Your task to perform on an android device: Search for macbook on amazon.com, select the first entry, and add it to the cart. Image 0: 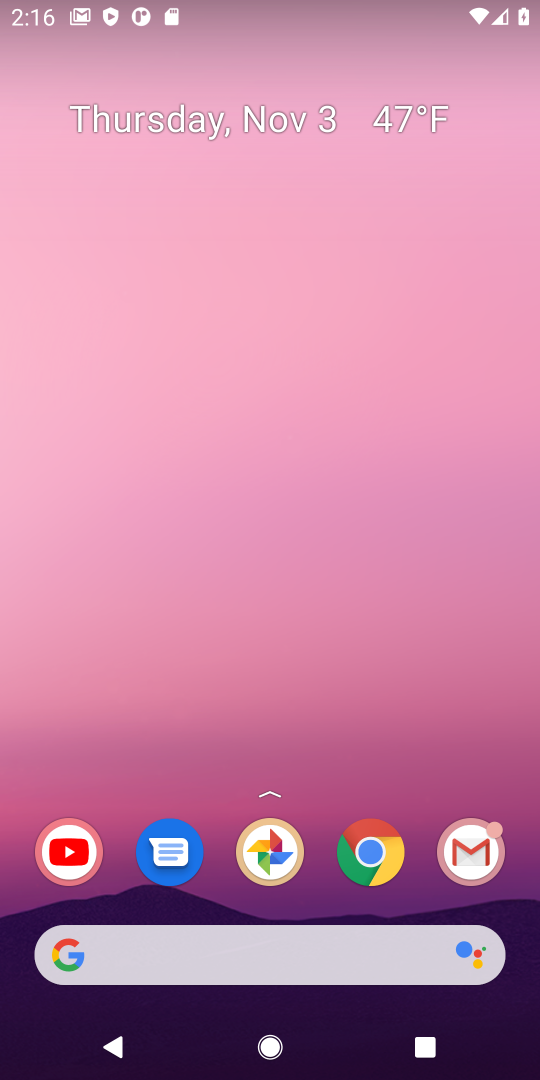
Step 0: click (373, 874)
Your task to perform on an android device: Search for macbook on amazon.com, select the first entry, and add it to the cart. Image 1: 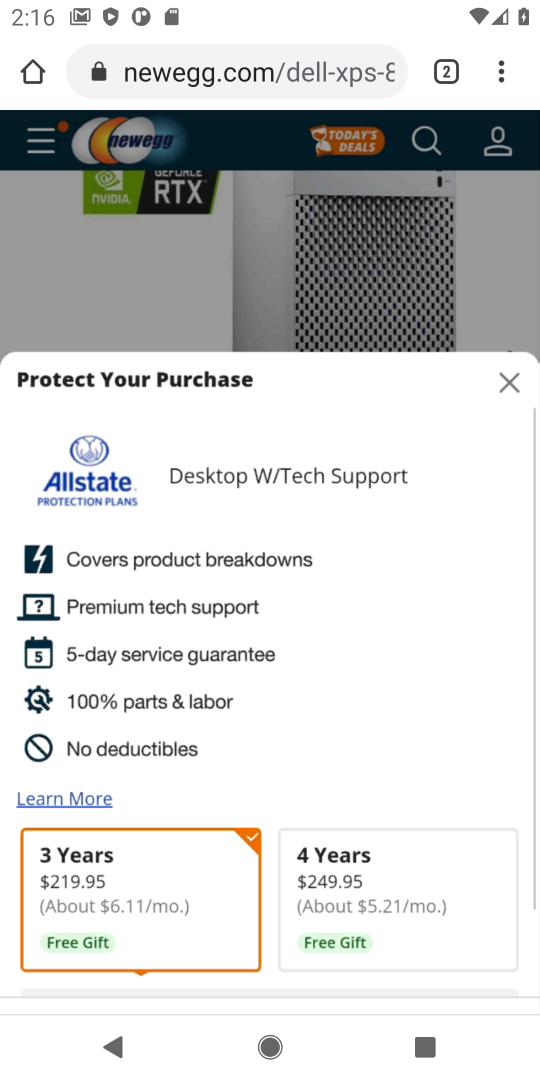
Step 1: click (231, 70)
Your task to perform on an android device: Search for macbook on amazon.com, select the first entry, and add it to the cart. Image 2: 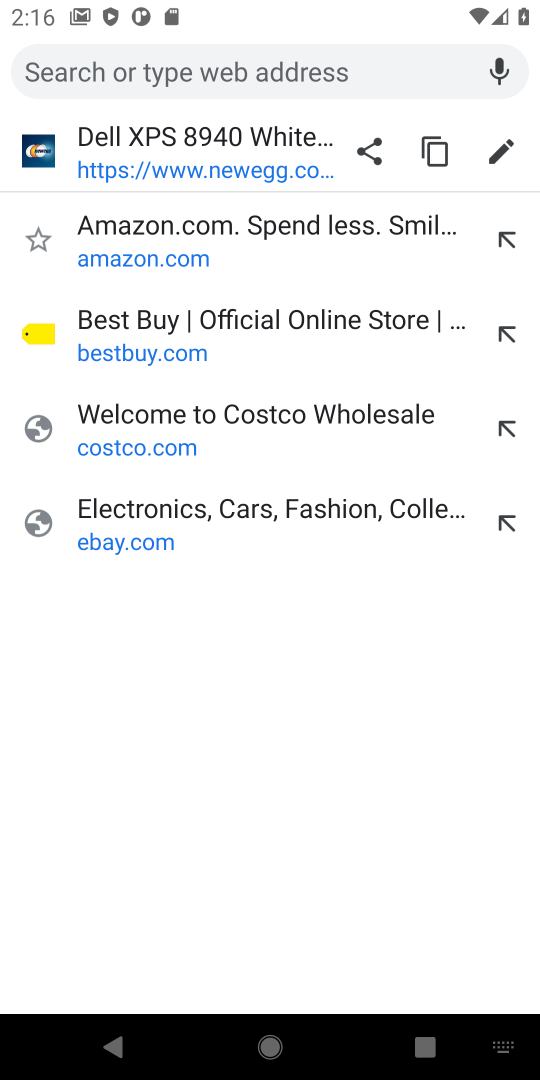
Step 2: click (144, 270)
Your task to perform on an android device: Search for macbook on amazon.com, select the first entry, and add it to the cart. Image 3: 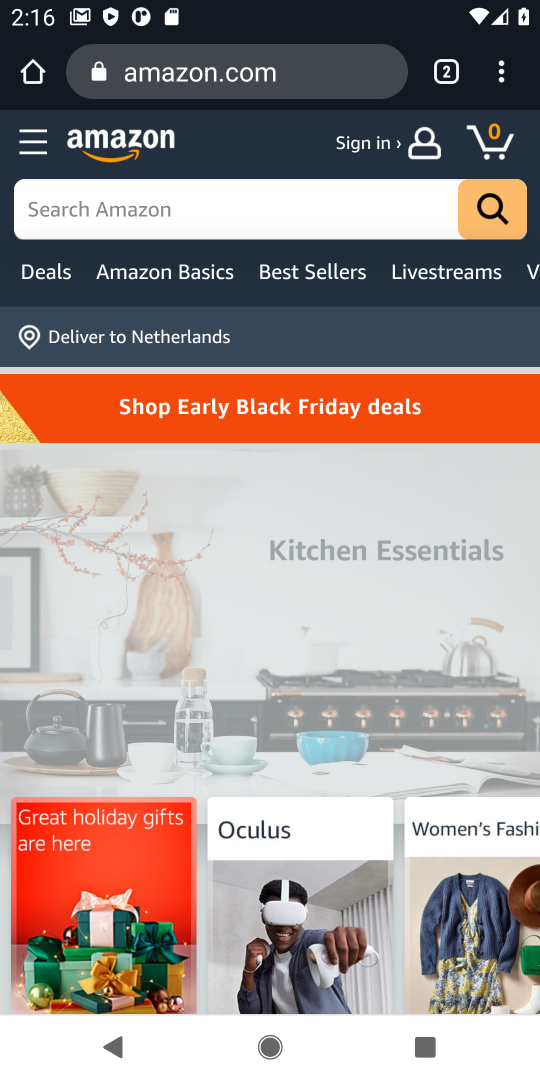
Step 3: click (132, 192)
Your task to perform on an android device: Search for macbook on amazon.com, select the first entry, and add it to the cart. Image 4: 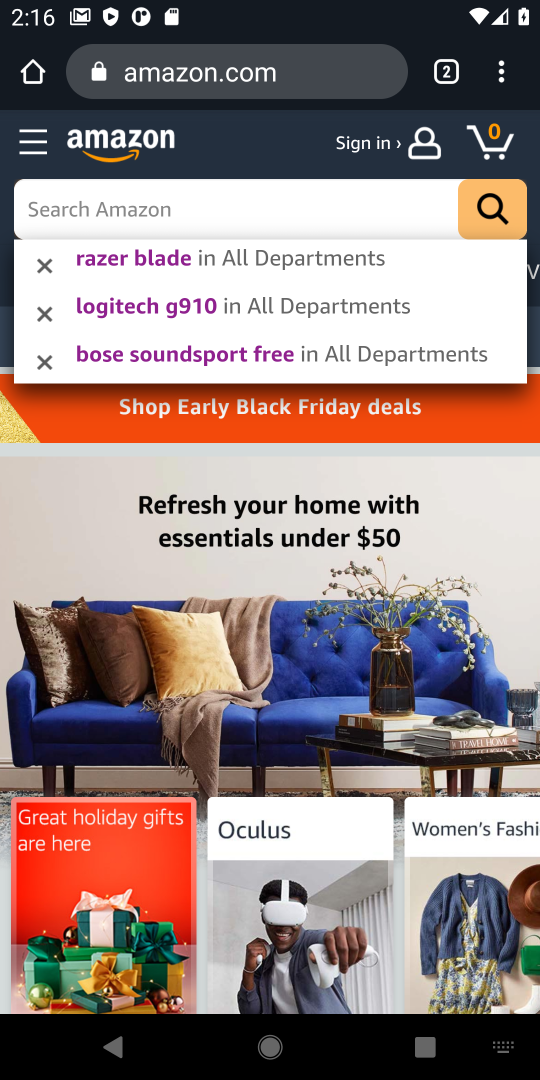
Step 4: type "macbook"
Your task to perform on an android device: Search for macbook on amazon.com, select the first entry, and add it to the cart. Image 5: 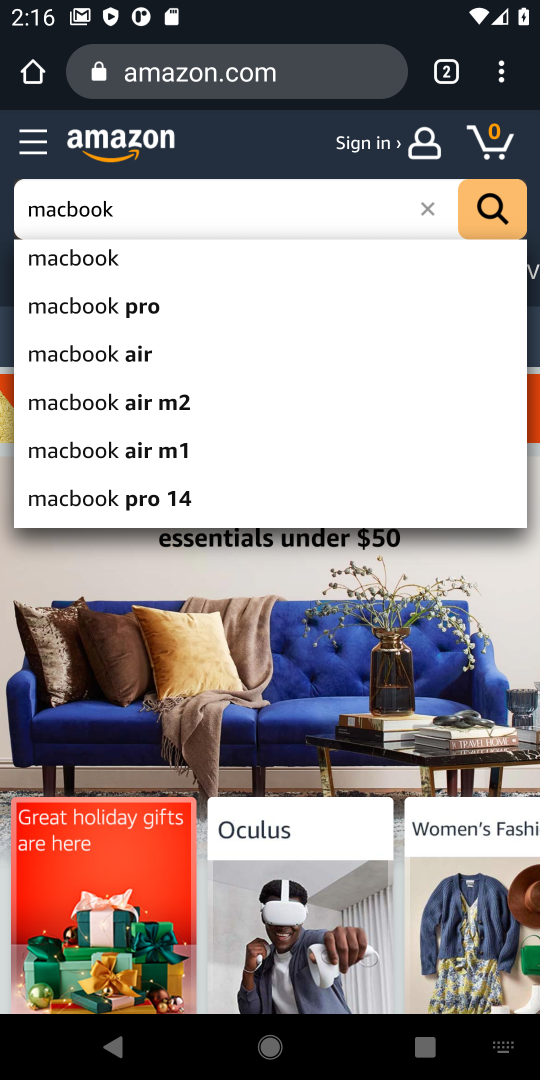
Step 5: click (73, 269)
Your task to perform on an android device: Search for macbook on amazon.com, select the first entry, and add it to the cart. Image 6: 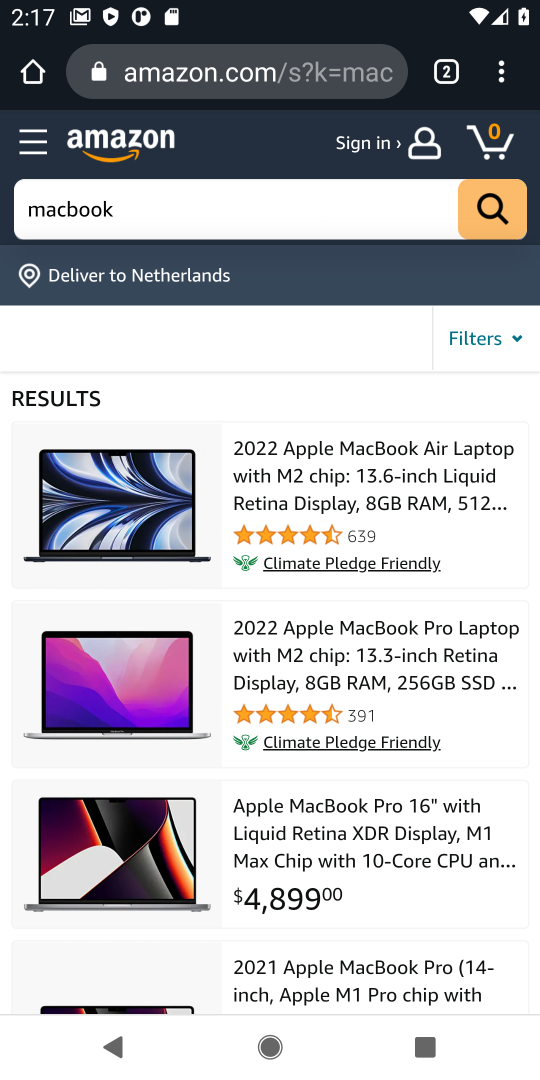
Step 6: click (314, 503)
Your task to perform on an android device: Search for macbook on amazon.com, select the first entry, and add it to the cart. Image 7: 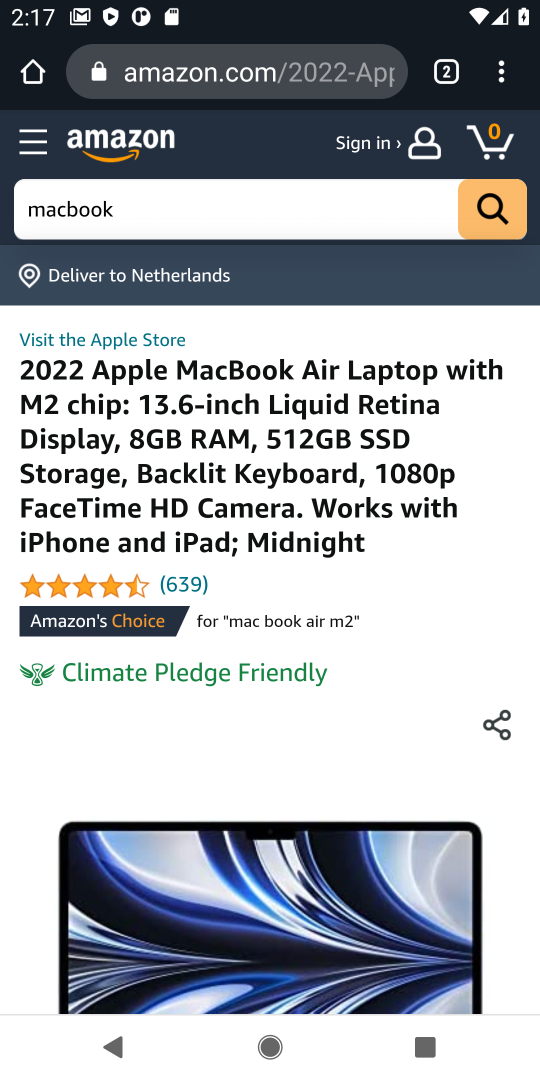
Step 7: drag from (297, 864) to (312, 250)
Your task to perform on an android device: Search for macbook on amazon.com, select the first entry, and add it to the cart. Image 8: 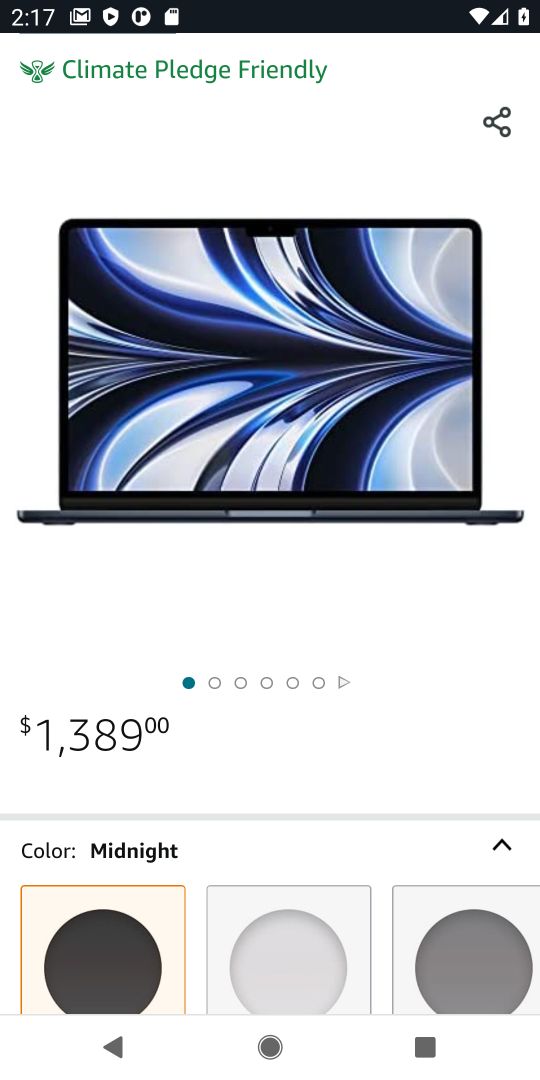
Step 8: drag from (273, 731) to (272, 238)
Your task to perform on an android device: Search for macbook on amazon.com, select the first entry, and add it to the cart. Image 9: 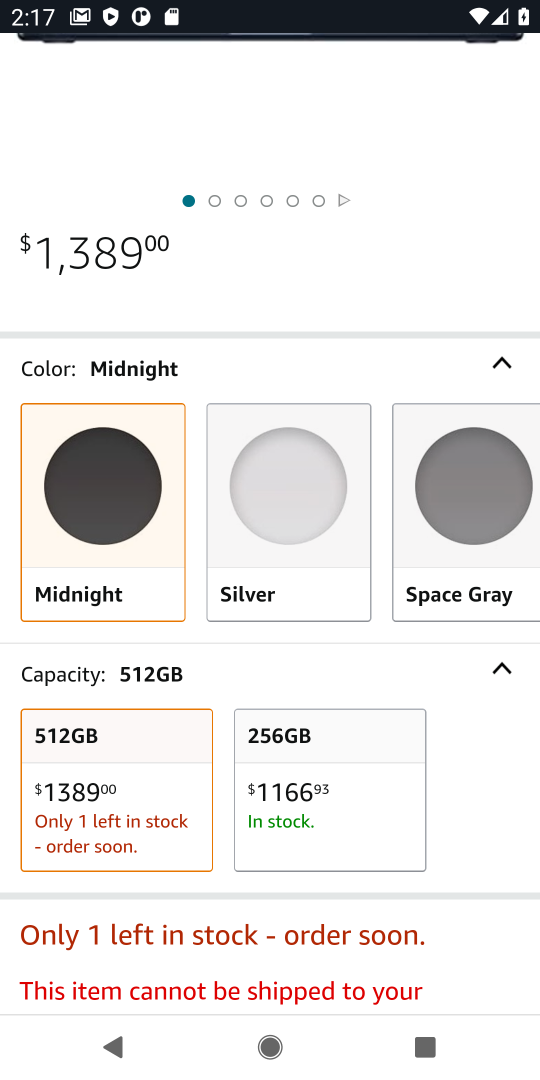
Step 9: drag from (240, 880) to (239, 435)
Your task to perform on an android device: Search for macbook on amazon.com, select the first entry, and add it to the cart. Image 10: 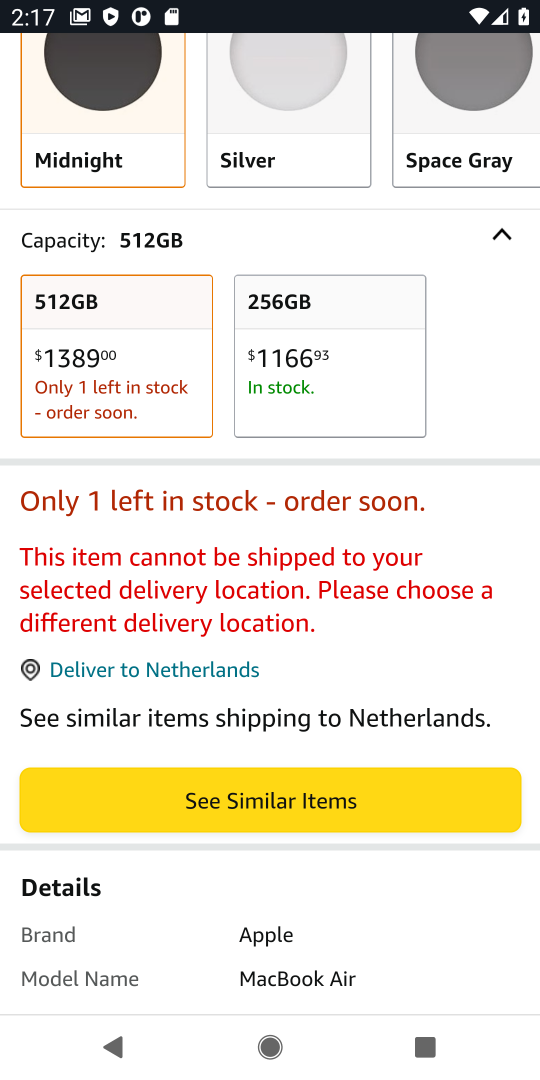
Step 10: drag from (225, 611) to (221, 369)
Your task to perform on an android device: Search for macbook on amazon.com, select the first entry, and add it to the cart. Image 11: 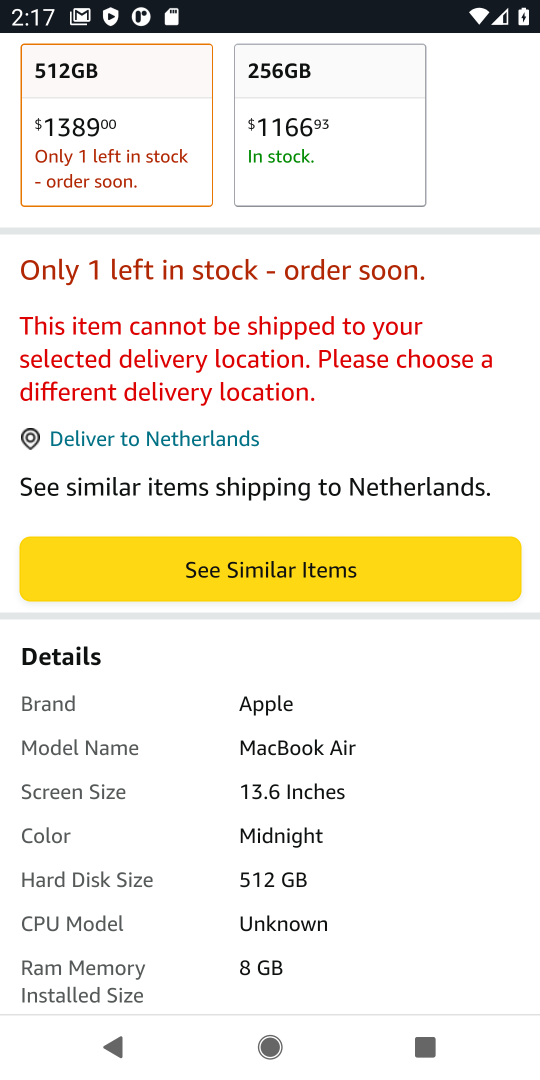
Step 11: drag from (248, 729) to (247, 304)
Your task to perform on an android device: Search for macbook on amazon.com, select the first entry, and add it to the cart. Image 12: 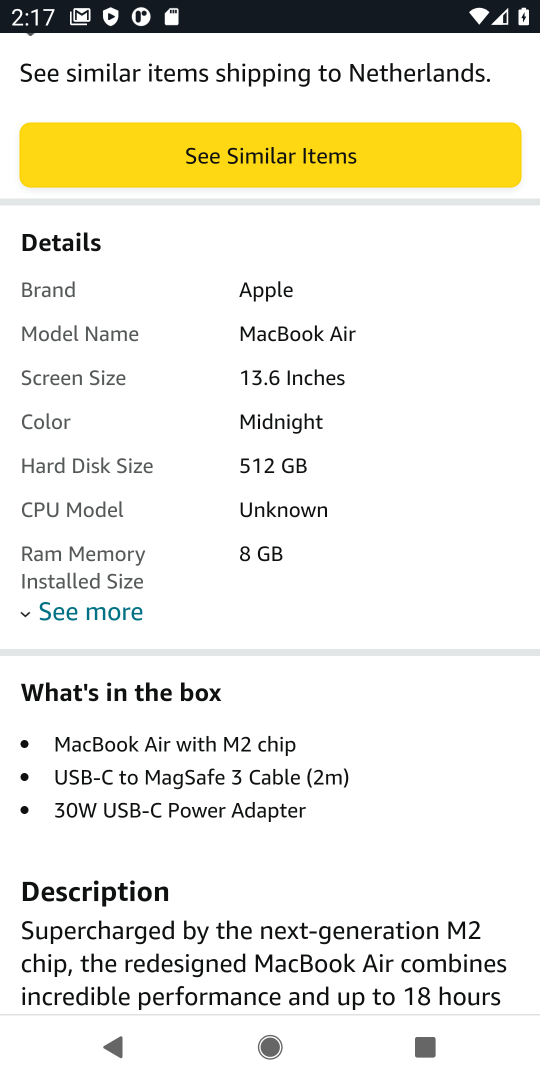
Step 12: drag from (240, 756) to (240, 285)
Your task to perform on an android device: Search for macbook on amazon.com, select the first entry, and add it to the cart. Image 13: 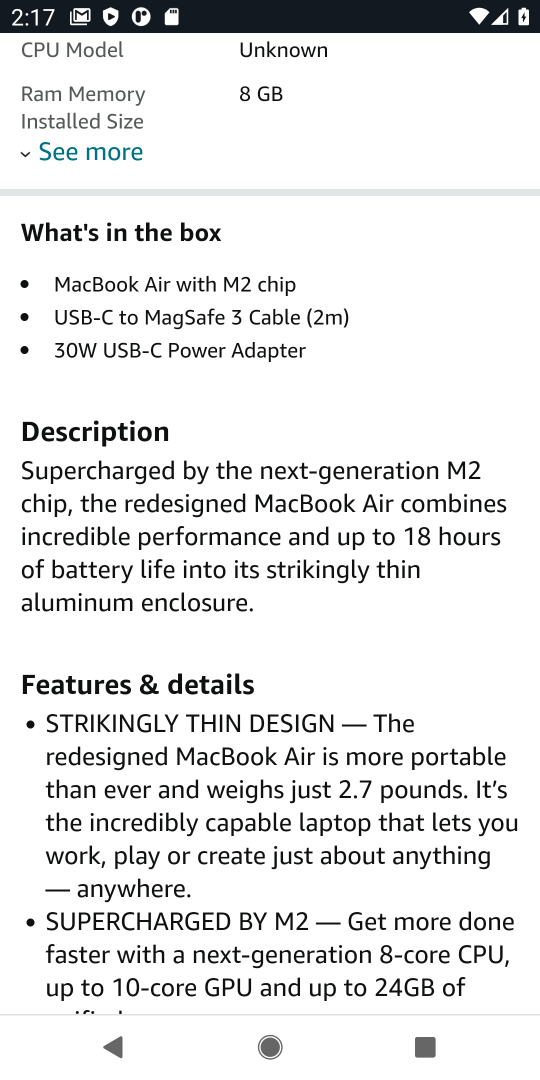
Step 13: drag from (204, 824) to (217, 281)
Your task to perform on an android device: Search for macbook on amazon.com, select the first entry, and add it to the cart. Image 14: 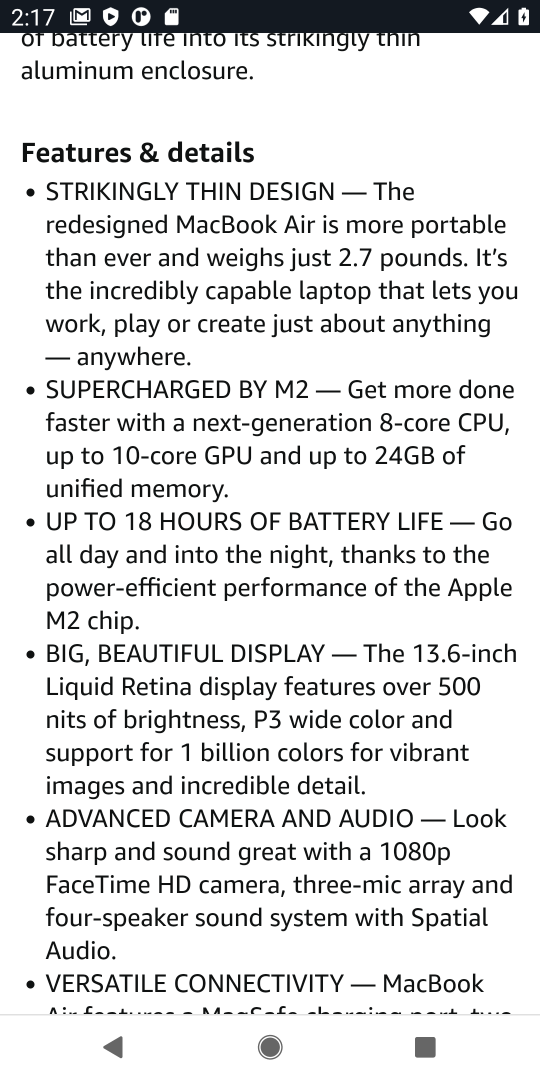
Step 14: drag from (215, 727) to (209, 297)
Your task to perform on an android device: Search for macbook on amazon.com, select the first entry, and add it to the cart. Image 15: 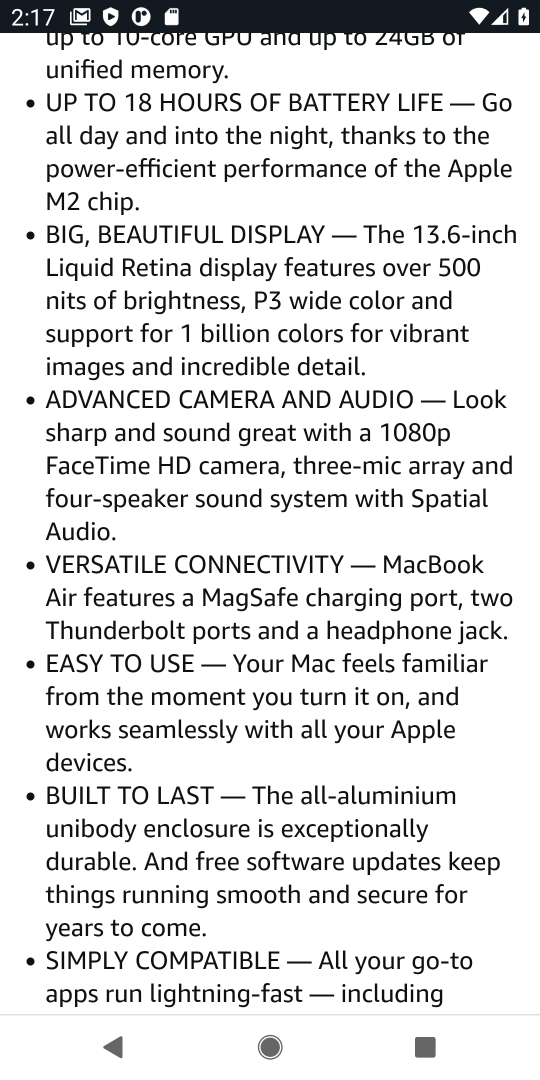
Step 15: drag from (209, 294) to (197, 1078)
Your task to perform on an android device: Search for macbook on amazon.com, select the first entry, and add it to the cart. Image 16: 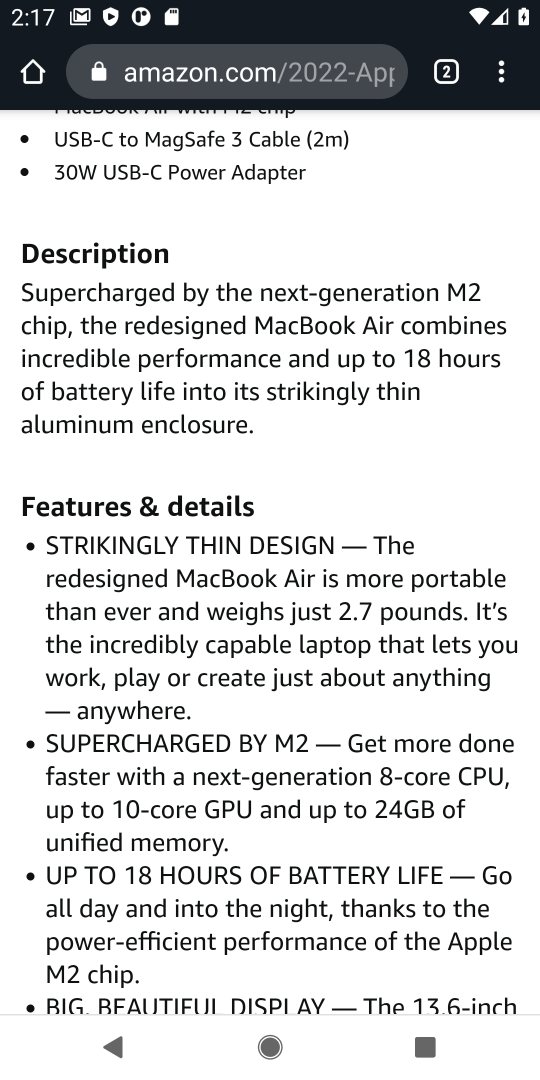
Step 16: drag from (282, 277) to (245, 1067)
Your task to perform on an android device: Search for macbook on amazon.com, select the first entry, and add it to the cart. Image 17: 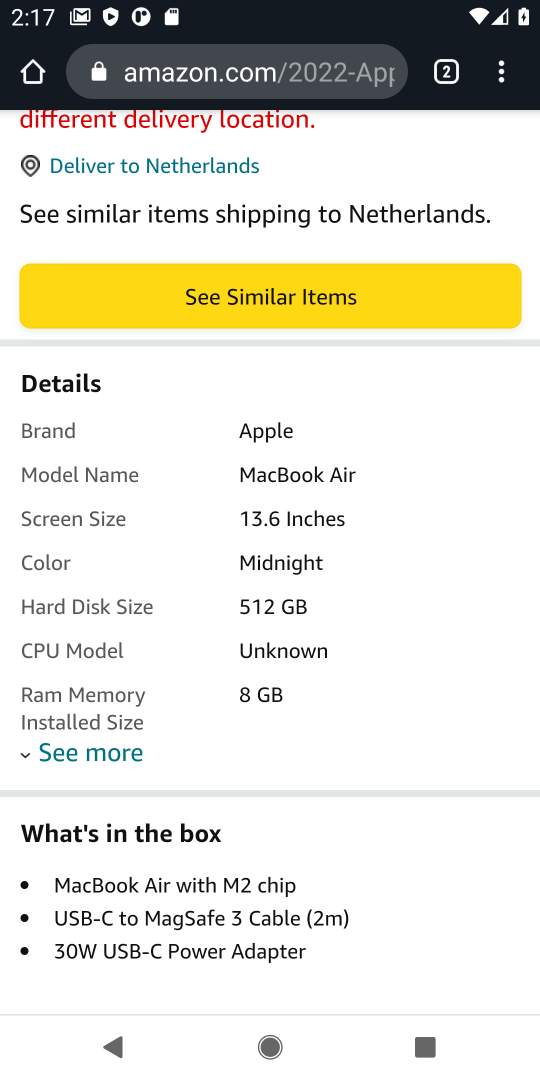
Step 17: drag from (440, 307) to (404, 999)
Your task to perform on an android device: Search for macbook on amazon.com, select the first entry, and add it to the cart. Image 18: 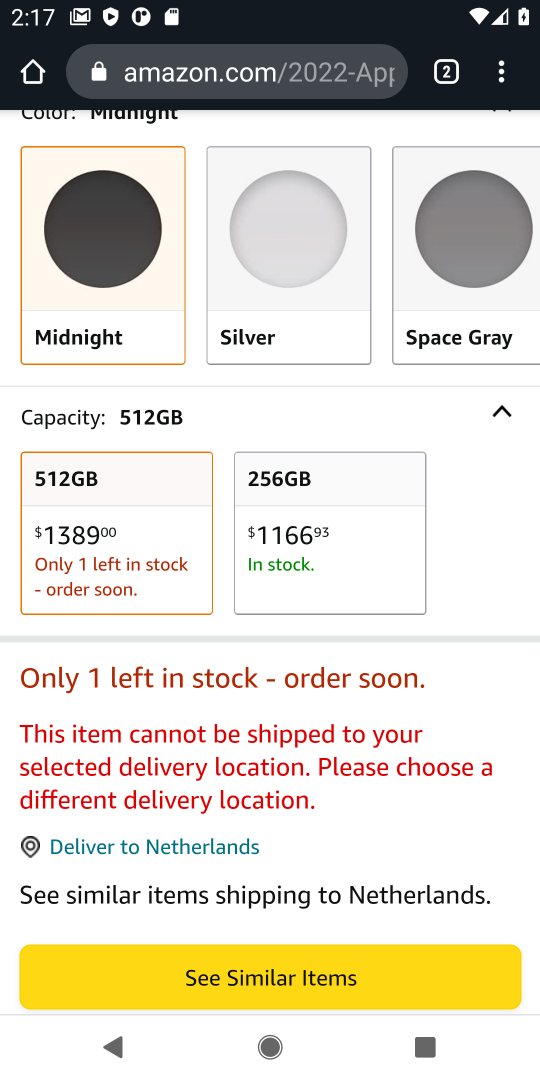
Step 18: drag from (430, 438) to (354, 1078)
Your task to perform on an android device: Search for macbook on amazon.com, select the first entry, and add it to the cart. Image 19: 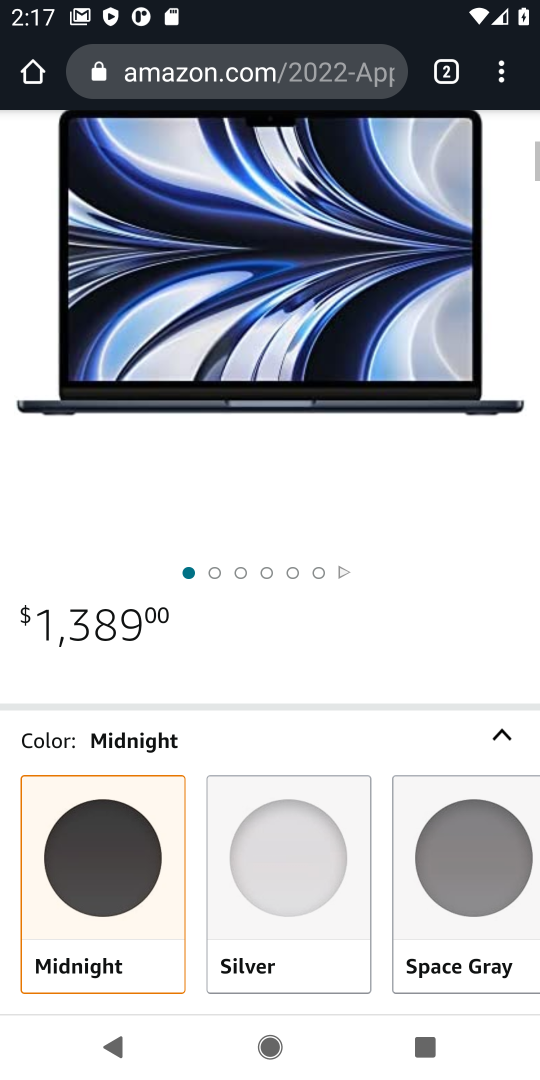
Step 19: drag from (397, 352) to (327, 968)
Your task to perform on an android device: Search for macbook on amazon.com, select the first entry, and add it to the cart. Image 20: 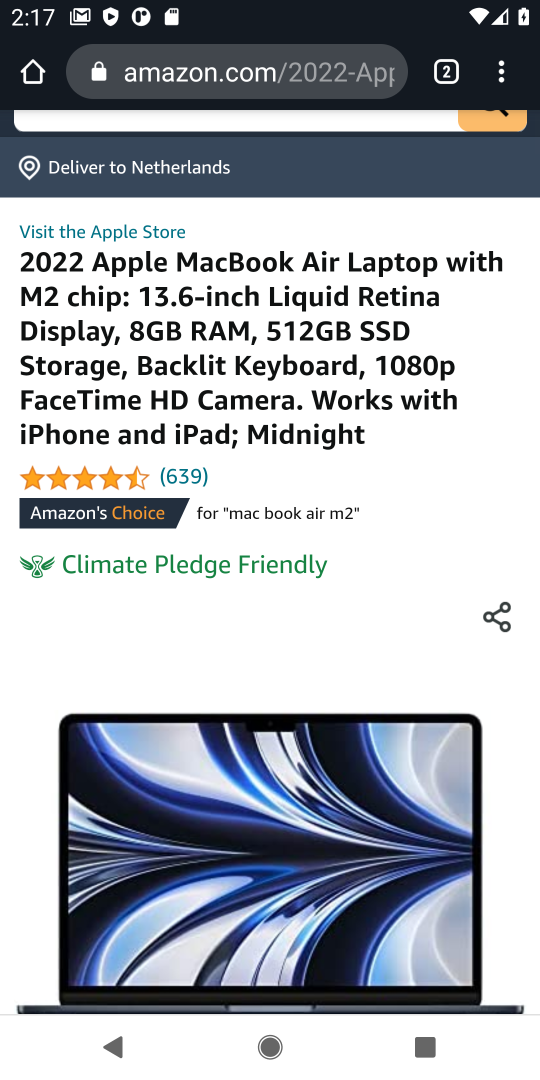
Step 20: drag from (358, 369) to (330, 902)
Your task to perform on an android device: Search for macbook on amazon.com, select the first entry, and add it to the cart. Image 21: 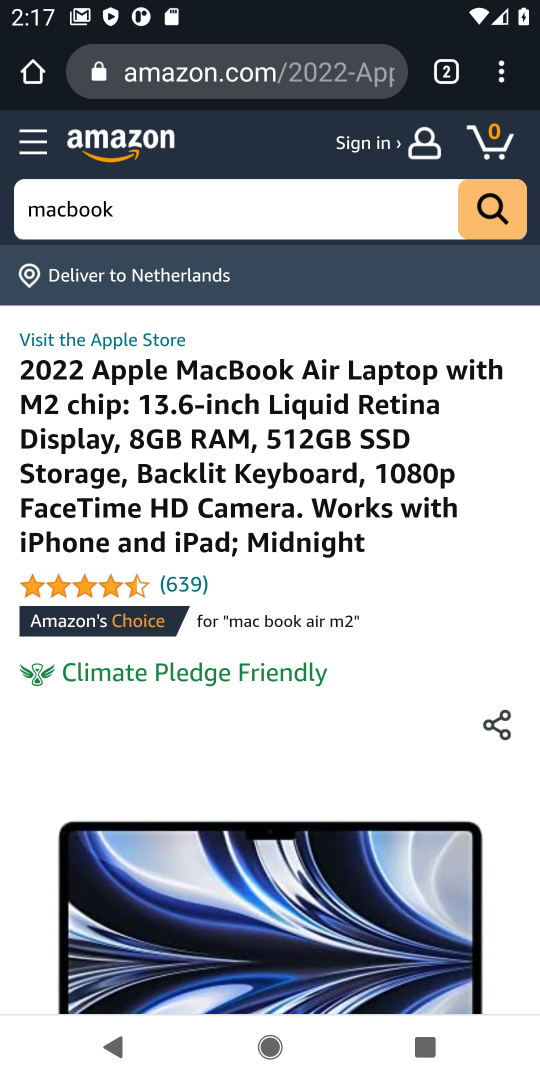
Step 21: press back button
Your task to perform on an android device: Search for macbook on amazon.com, select the first entry, and add it to the cart. Image 22: 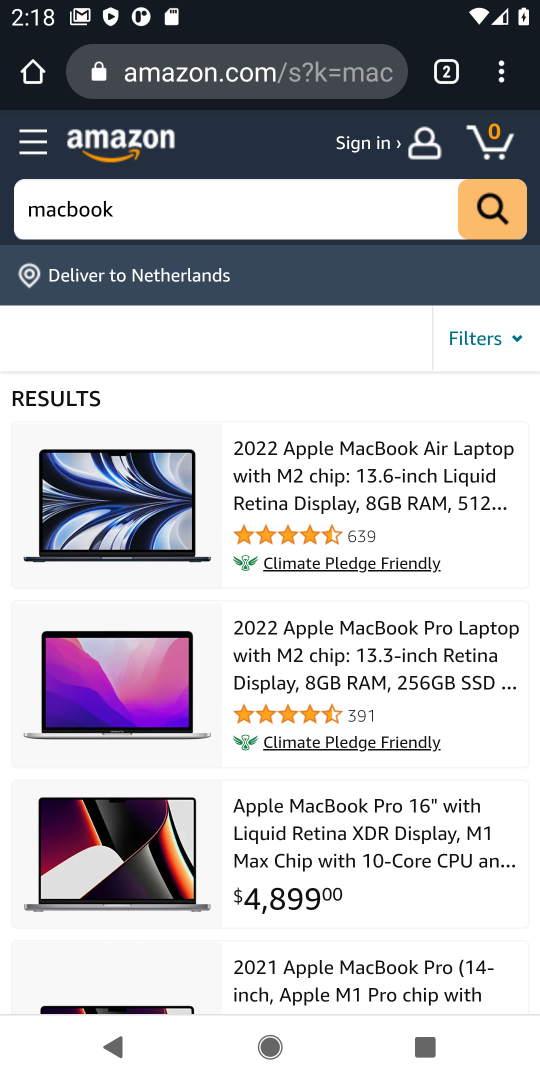
Step 22: click (271, 699)
Your task to perform on an android device: Search for macbook on amazon.com, select the first entry, and add it to the cart. Image 23: 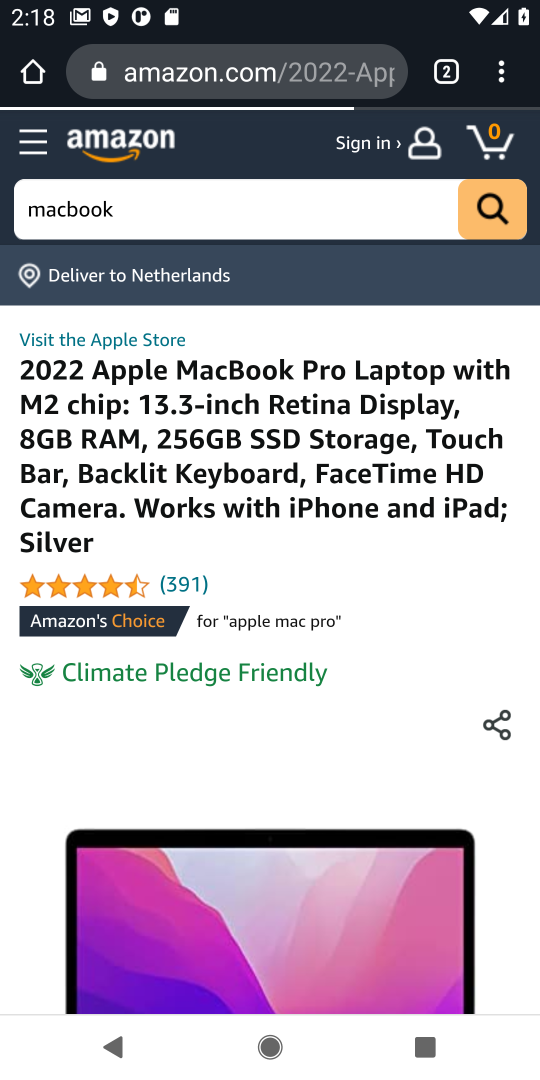
Step 23: drag from (271, 693) to (289, 122)
Your task to perform on an android device: Search for macbook on amazon.com, select the first entry, and add it to the cart. Image 24: 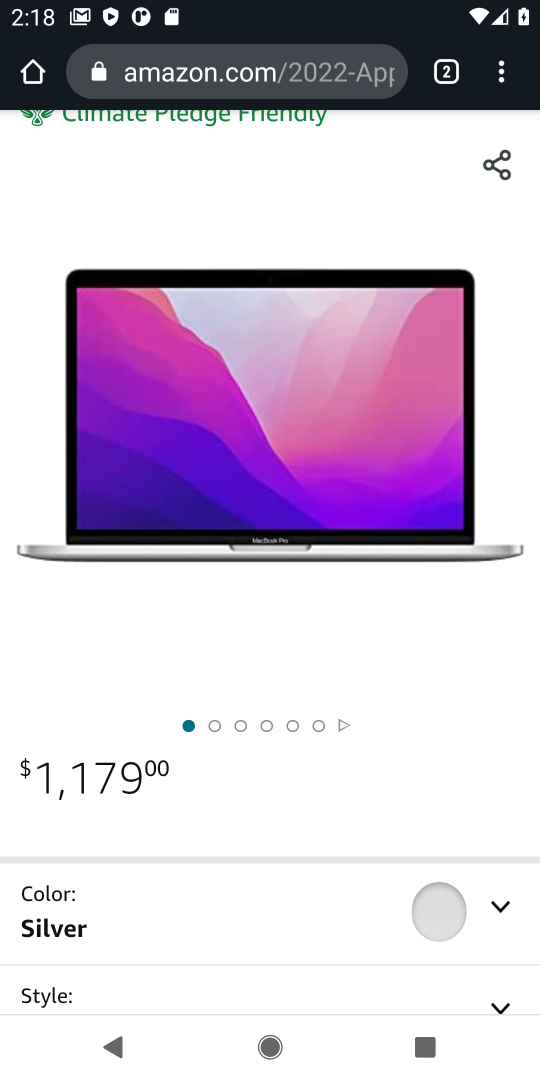
Step 24: drag from (242, 708) to (265, 197)
Your task to perform on an android device: Search for macbook on amazon.com, select the first entry, and add it to the cart. Image 25: 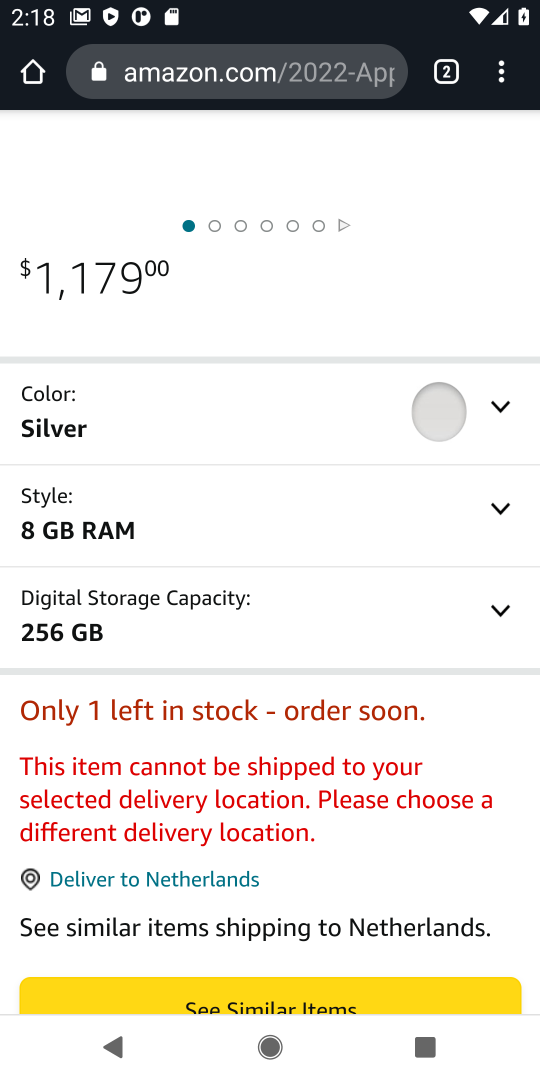
Step 25: drag from (315, 488) to (320, 926)
Your task to perform on an android device: Search for macbook on amazon.com, select the first entry, and add it to the cart. Image 26: 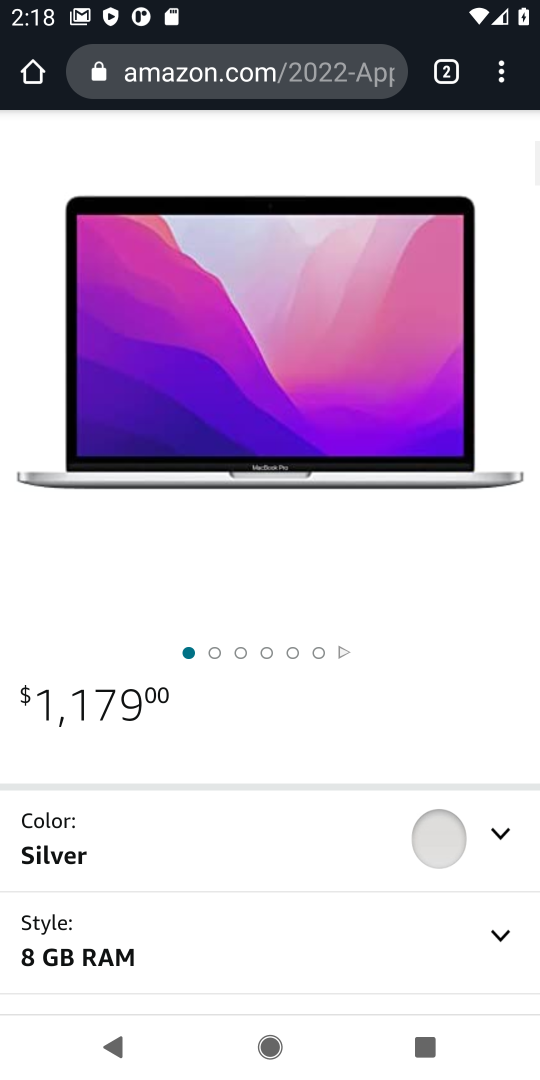
Step 26: press back button
Your task to perform on an android device: Search for macbook on amazon.com, select the first entry, and add it to the cart. Image 27: 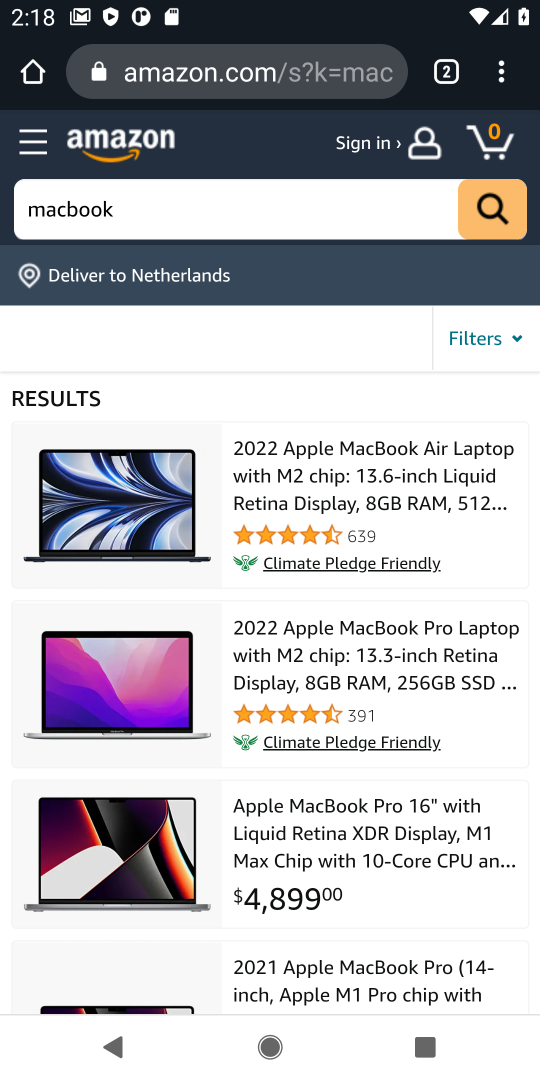
Step 27: drag from (247, 796) to (247, 491)
Your task to perform on an android device: Search for macbook on amazon.com, select the first entry, and add it to the cart. Image 28: 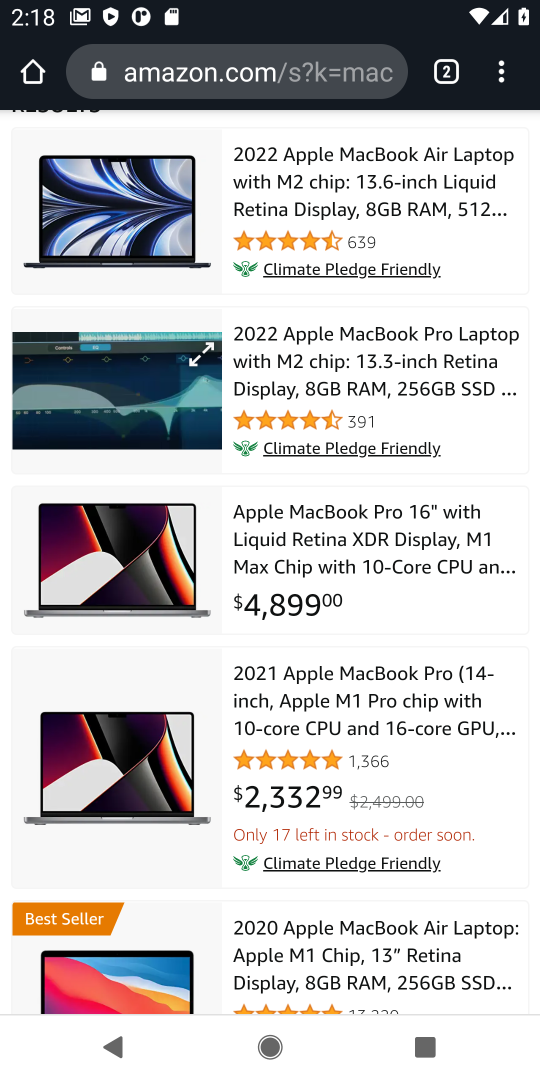
Step 28: click (247, 555)
Your task to perform on an android device: Search for macbook on amazon.com, select the first entry, and add it to the cart. Image 29: 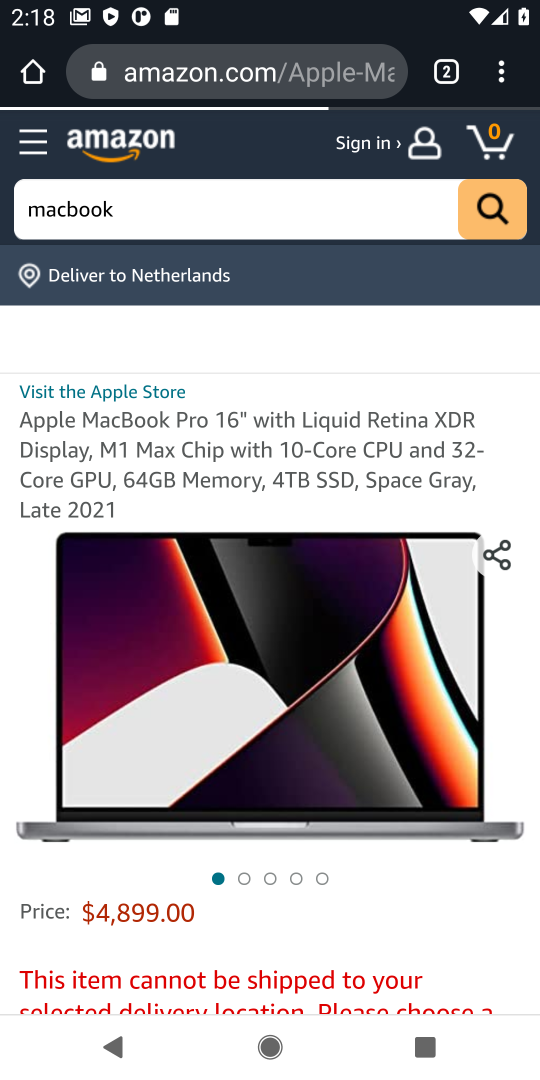
Step 29: drag from (268, 756) to (274, 205)
Your task to perform on an android device: Search for macbook on amazon.com, select the first entry, and add it to the cart. Image 30: 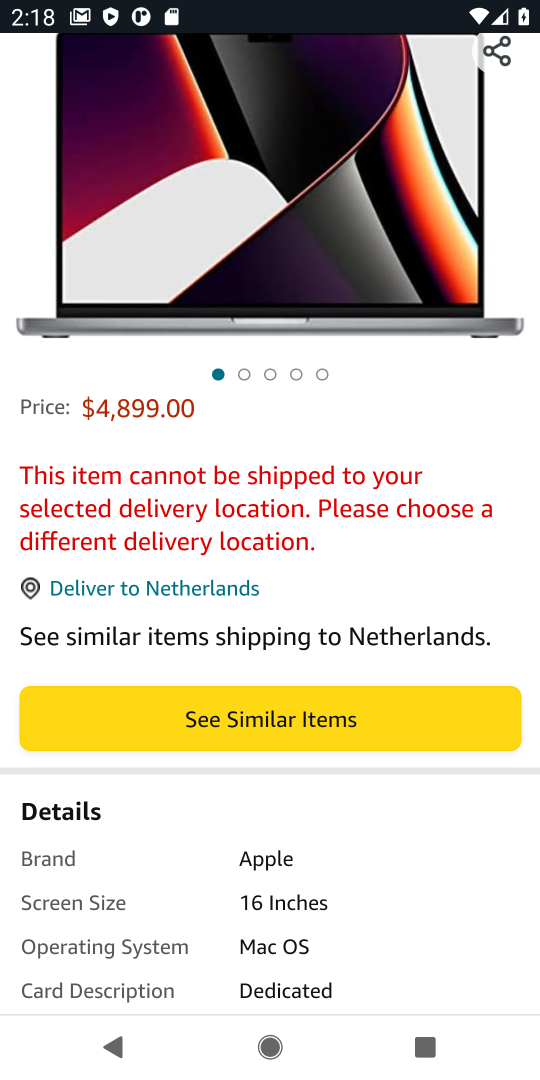
Step 30: drag from (277, 223) to (328, 861)
Your task to perform on an android device: Search for macbook on amazon.com, select the first entry, and add it to the cart. Image 31: 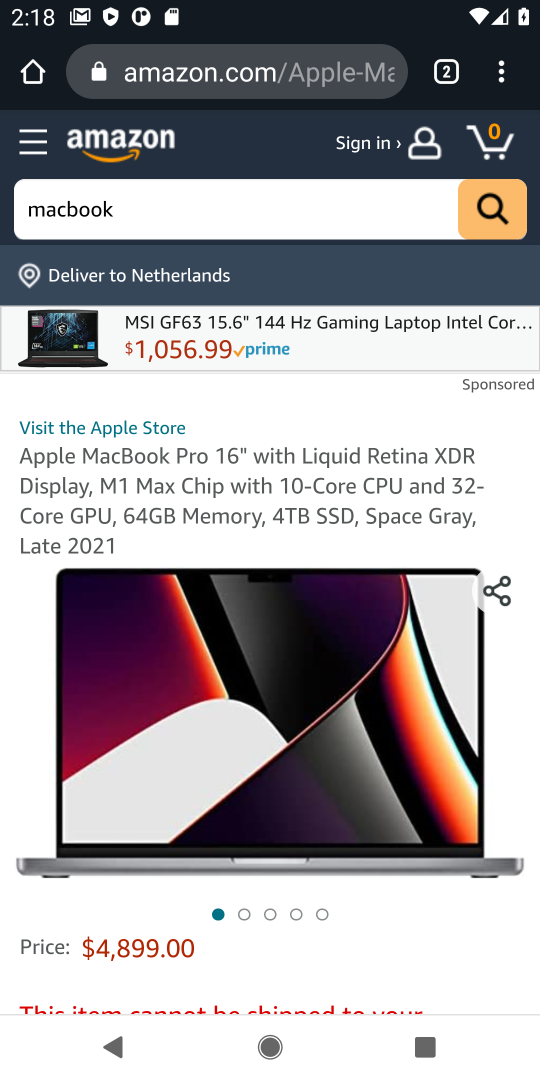
Step 31: press back button
Your task to perform on an android device: Search for macbook on amazon.com, select the first entry, and add it to the cart. Image 32: 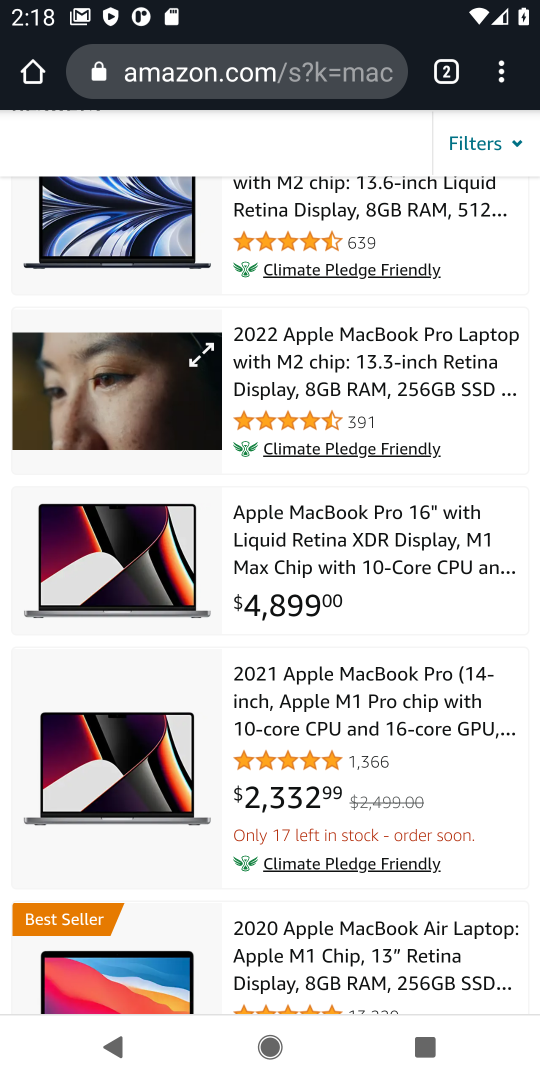
Step 32: click (267, 751)
Your task to perform on an android device: Search for macbook on amazon.com, select the first entry, and add it to the cart. Image 33: 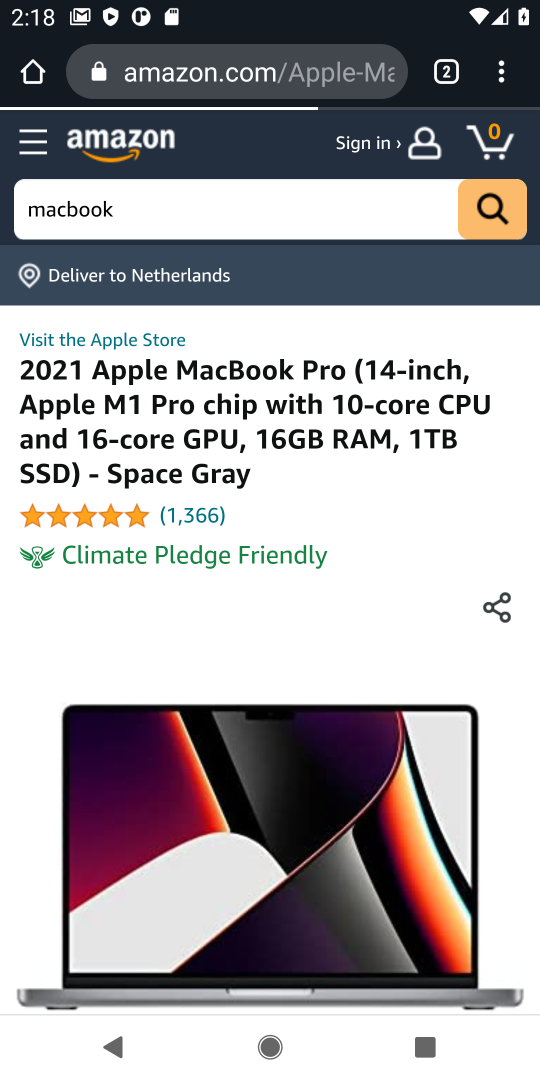
Step 33: drag from (267, 749) to (256, 180)
Your task to perform on an android device: Search for macbook on amazon.com, select the first entry, and add it to the cart. Image 34: 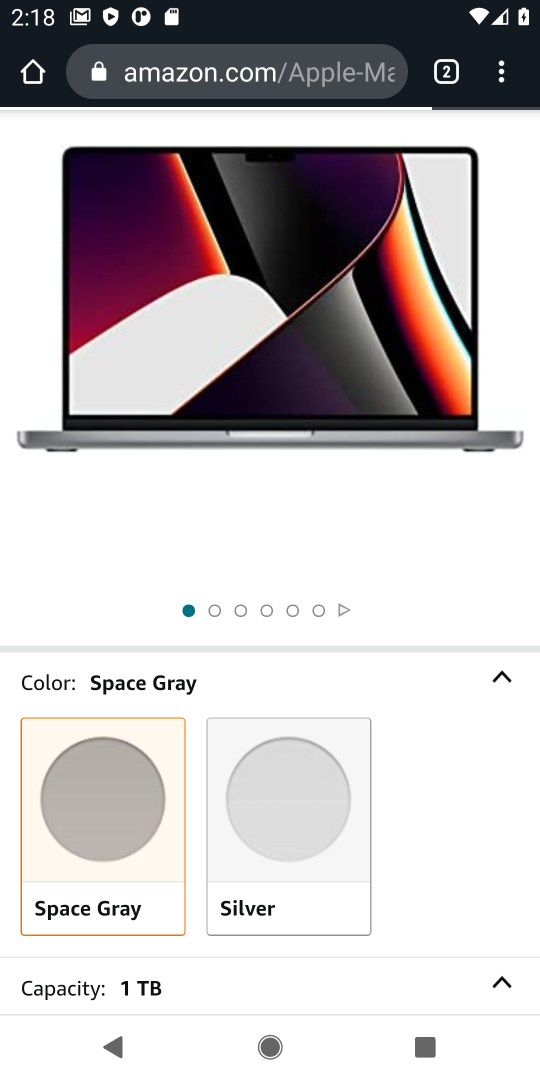
Step 34: drag from (233, 705) to (218, 247)
Your task to perform on an android device: Search for macbook on amazon.com, select the first entry, and add it to the cart. Image 35: 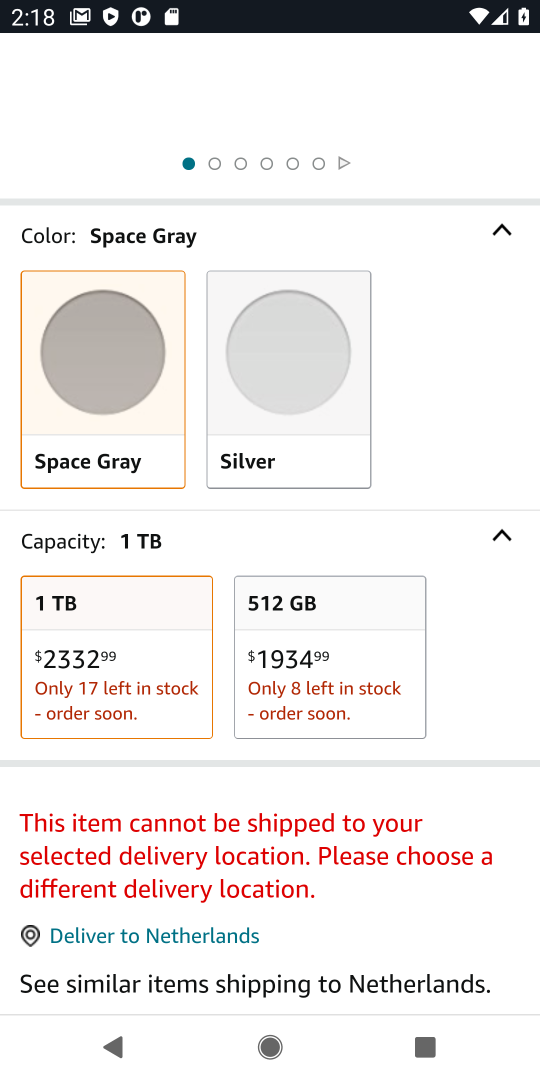
Step 35: drag from (387, 734) to (374, 249)
Your task to perform on an android device: Search for macbook on amazon.com, select the first entry, and add it to the cart. Image 36: 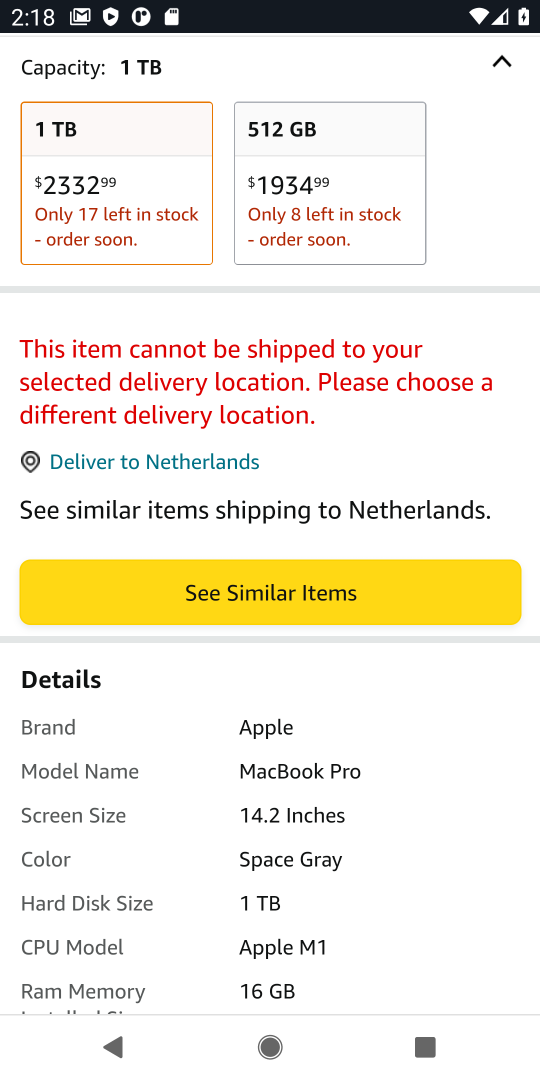
Step 36: press back button
Your task to perform on an android device: Search for macbook on amazon.com, select the first entry, and add it to the cart. Image 37: 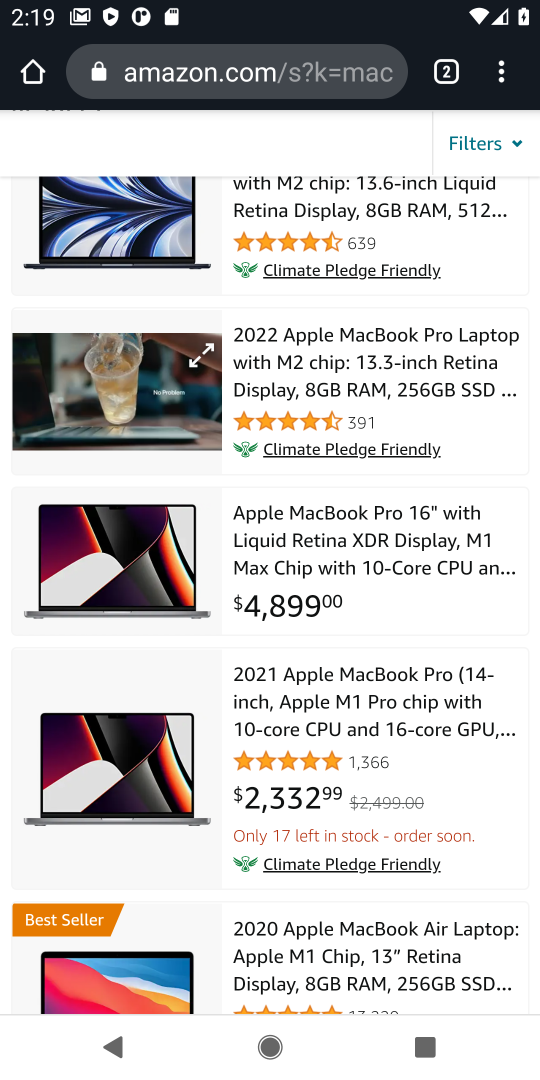
Step 37: click (151, 765)
Your task to perform on an android device: Search for macbook on amazon.com, select the first entry, and add it to the cart. Image 38: 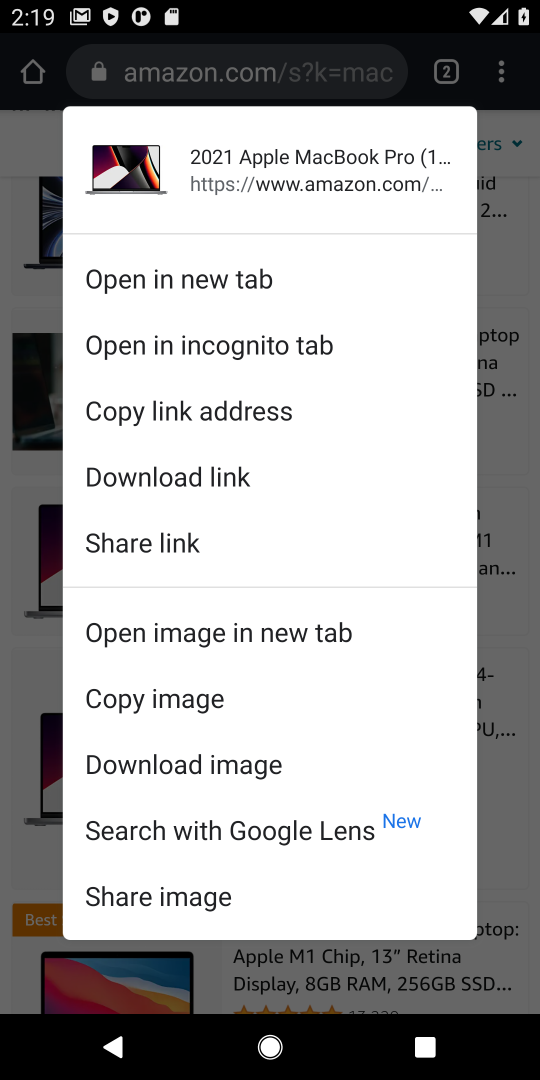
Step 38: click (512, 736)
Your task to perform on an android device: Search for macbook on amazon.com, select the first entry, and add it to the cart. Image 39: 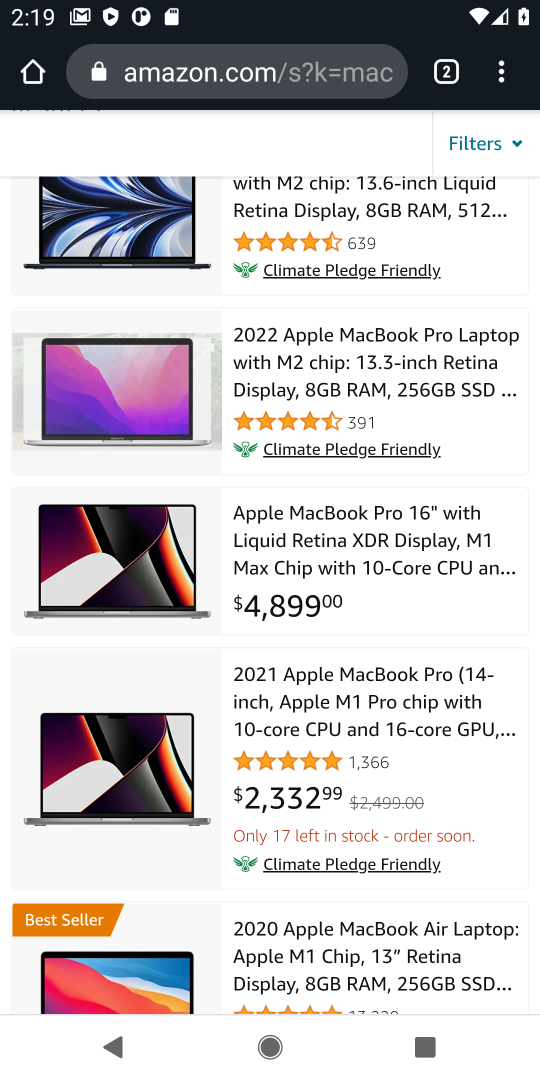
Step 39: click (177, 732)
Your task to perform on an android device: Search for macbook on amazon.com, select the first entry, and add it to the cart. Image 40: 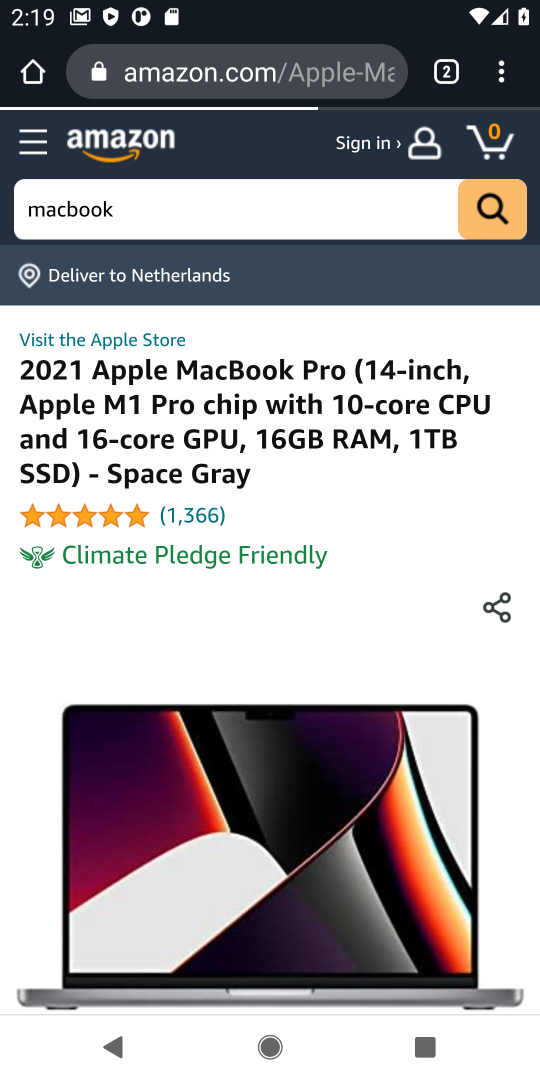
Step 40: task complete